Your task to perform on an android device: open app "Messages" (install if not already installed) Image 0: 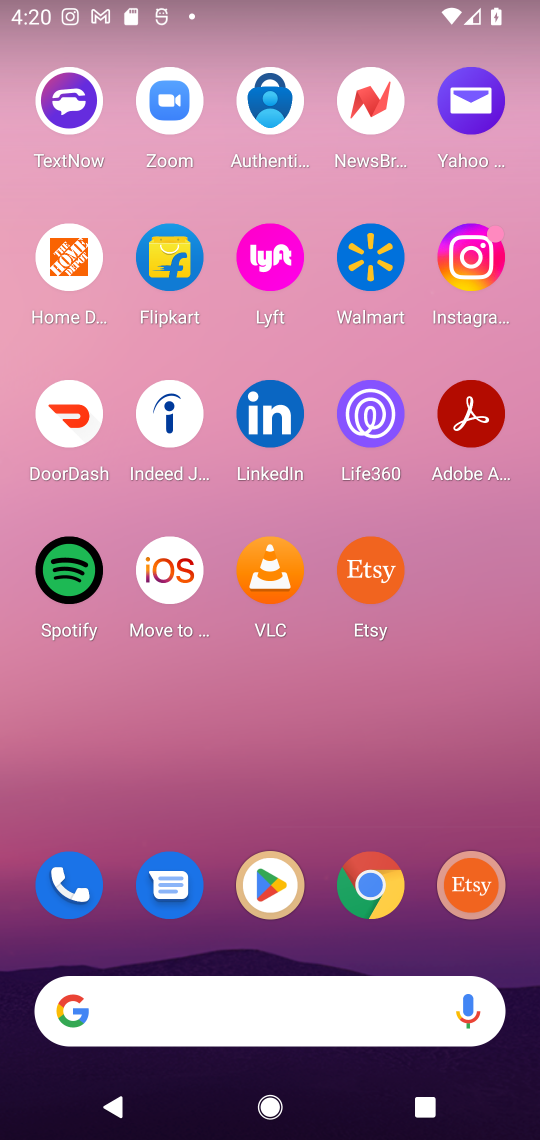
Step 0: press home button
Your task to perform on an android device: open app "Messages" (install if not already installed) Image 1: 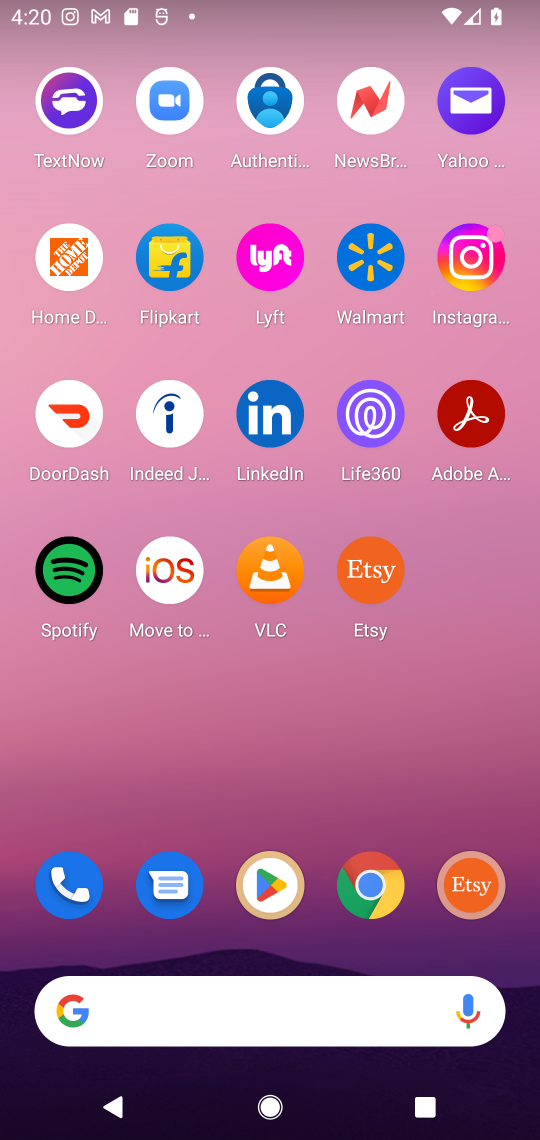
Step 1: click (263, 882)
Your task to perform on an android device: open app "Messages" (install if not already installed) Image 2: 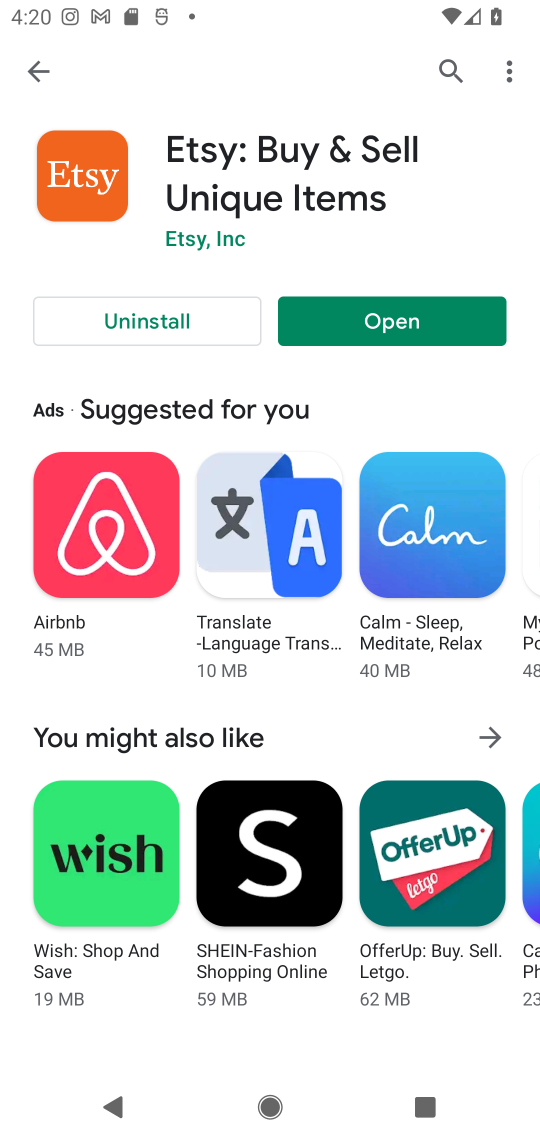
Step 2: click (45, 71)
Your task to perform on an android device: open app "Messages" (install if not already installed) Image 3: 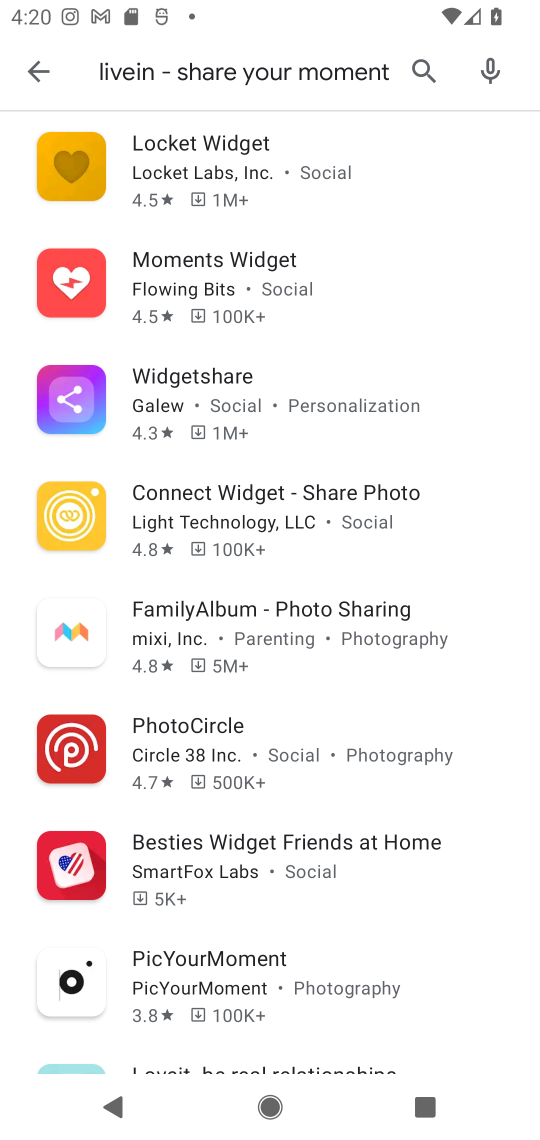
Step 3: click (431, 65)
Your task to perform on an android device: open app "Messages" (install if not already installed) Image 4: 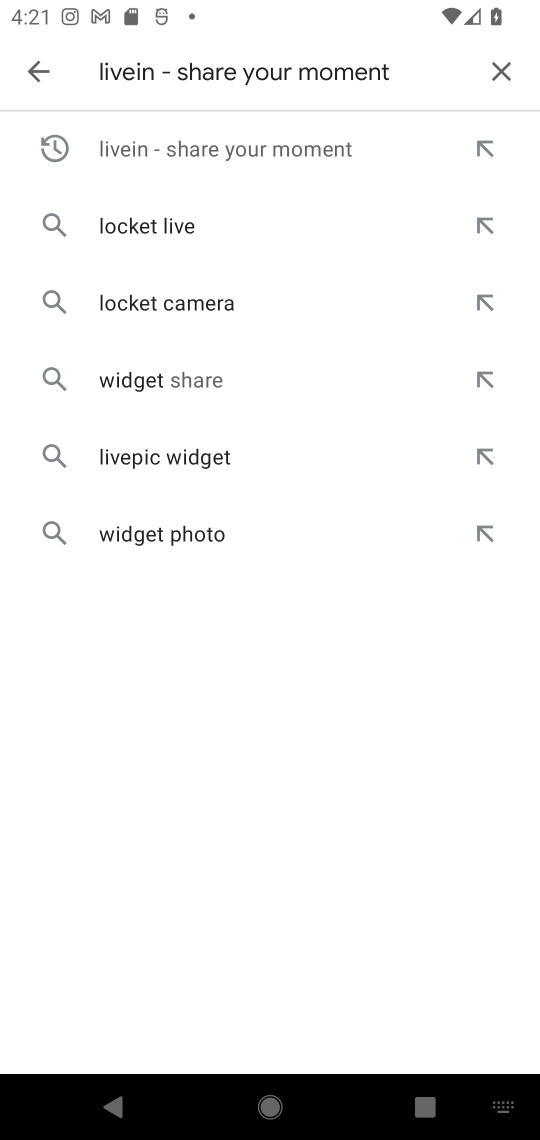
Step 4: click (499, 64)
Your task to perform on an android device: open app "Messages" (install if not already installed) Image 5: 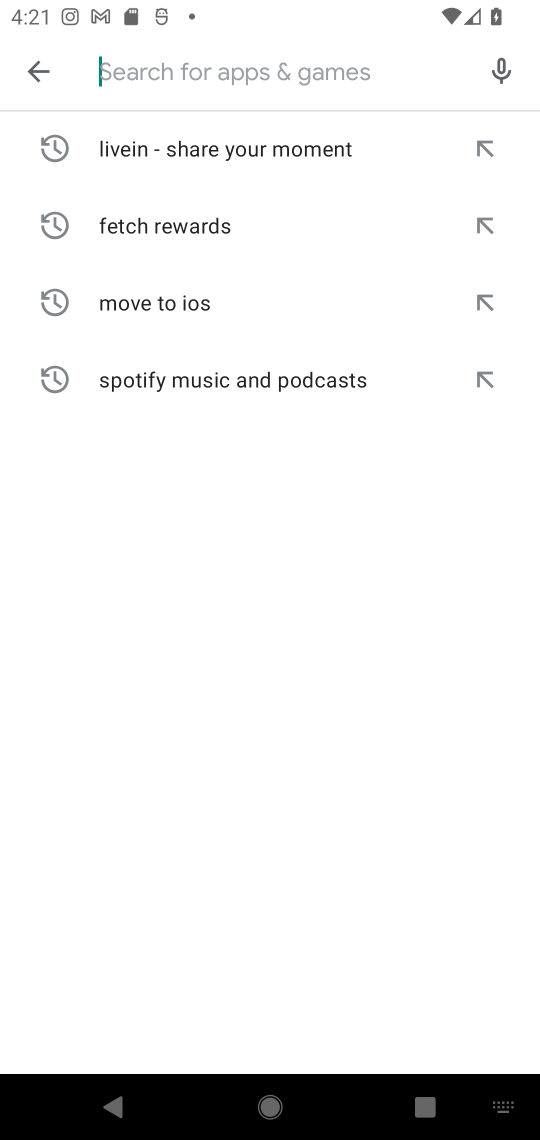
Step 5: type "Messages"
Your task to perform on an android device: open app "Messages" (install if not already installed) Image 6: 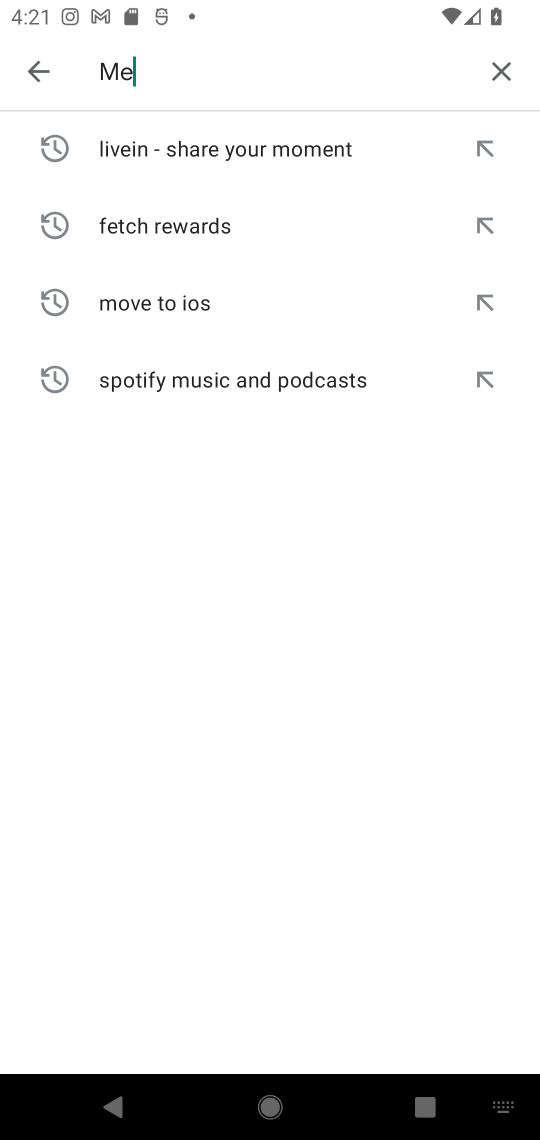
Step 6: type ""
Your task to perform on an android device: open app "Messages" (install if not already installed) Image 7: 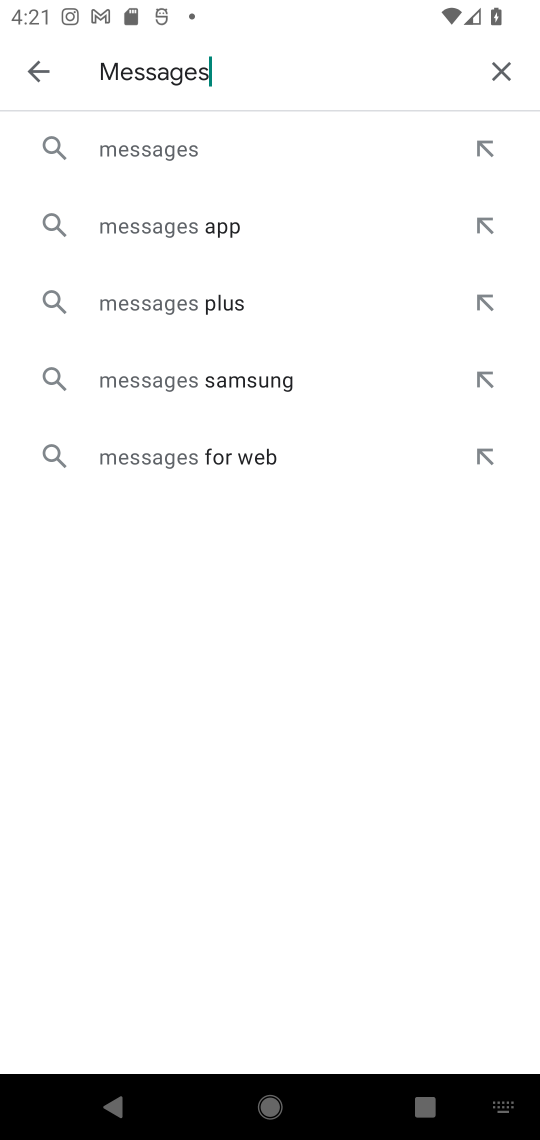
Step 7: click (178, 155)
Your task to perform on an android device: open app "Messages" (install if not already installed) Image 8: 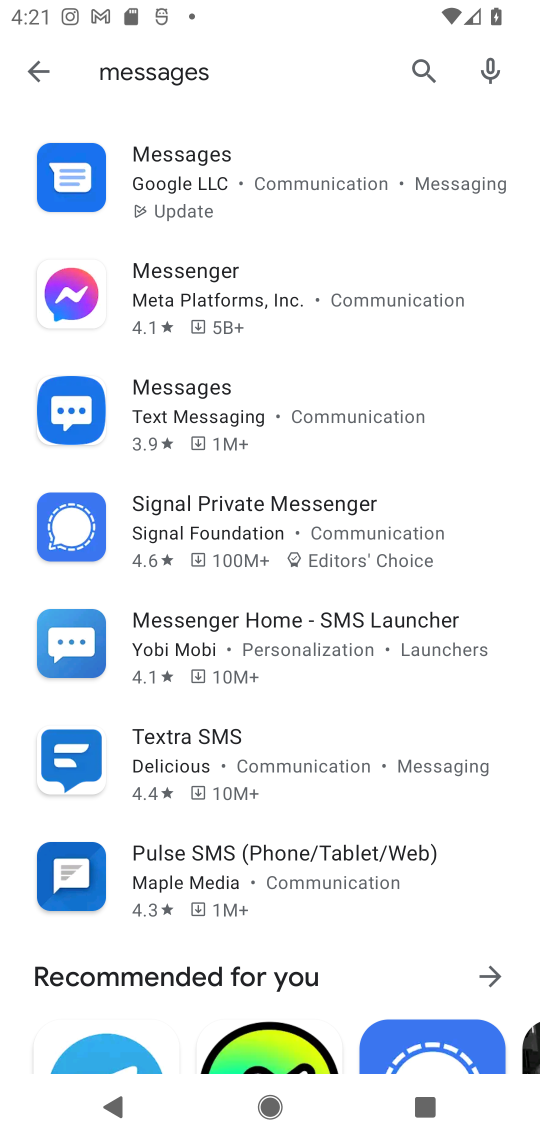
Step 8: click (231, 176)
Your task to perform on an android device: open app "Messages" (install if not already installed) Image 9: 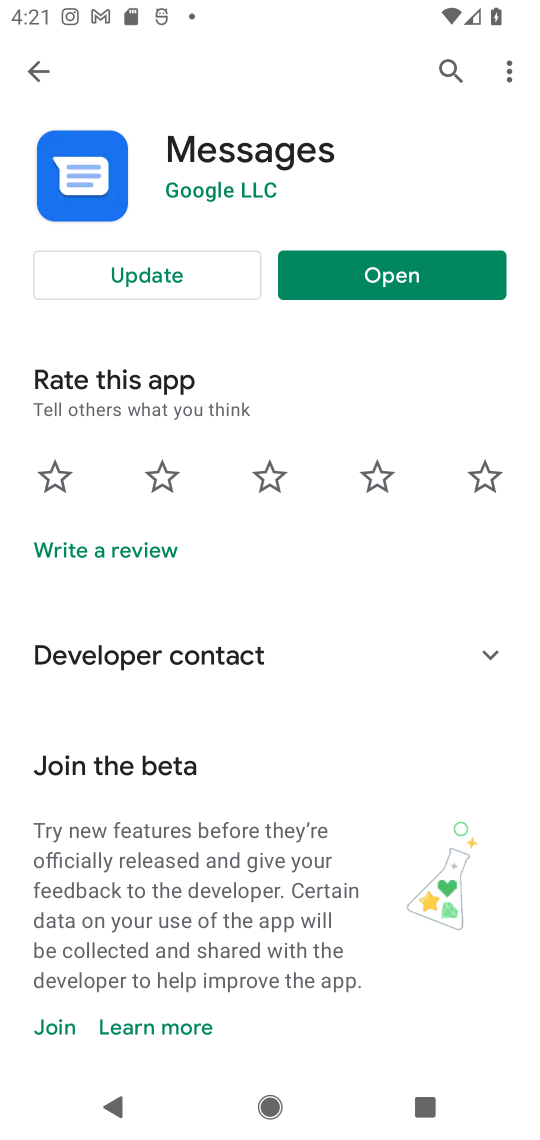
Step 9: click (417, 286)
Your task to perform on an android device: open app "Messages" (install if not already installed) Image 10: 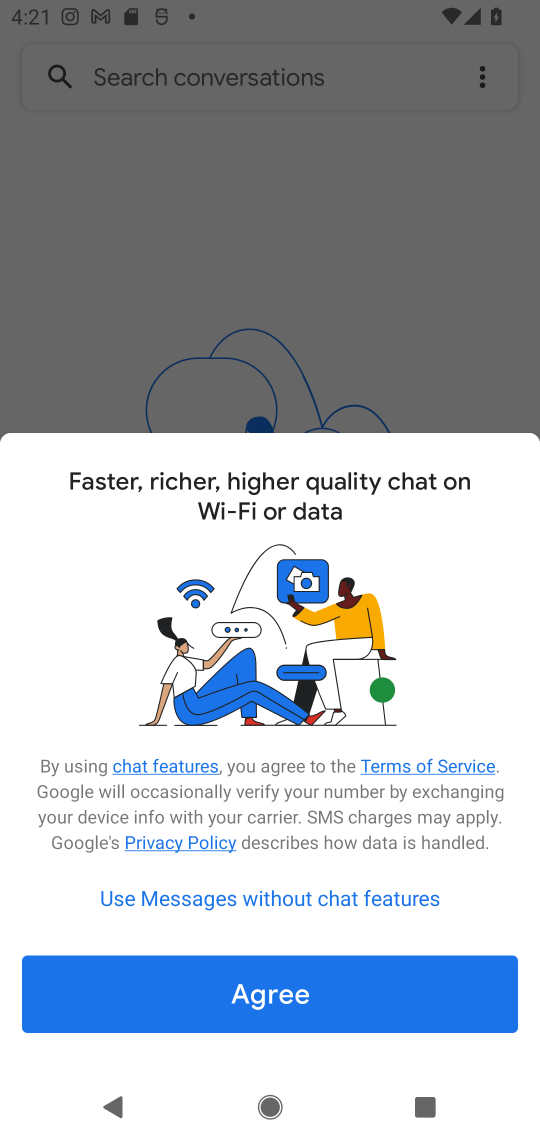
Step 10: click (259, 998)
Your task to perform on an android device: open app "Messages" (install if not already installed) Image 11: 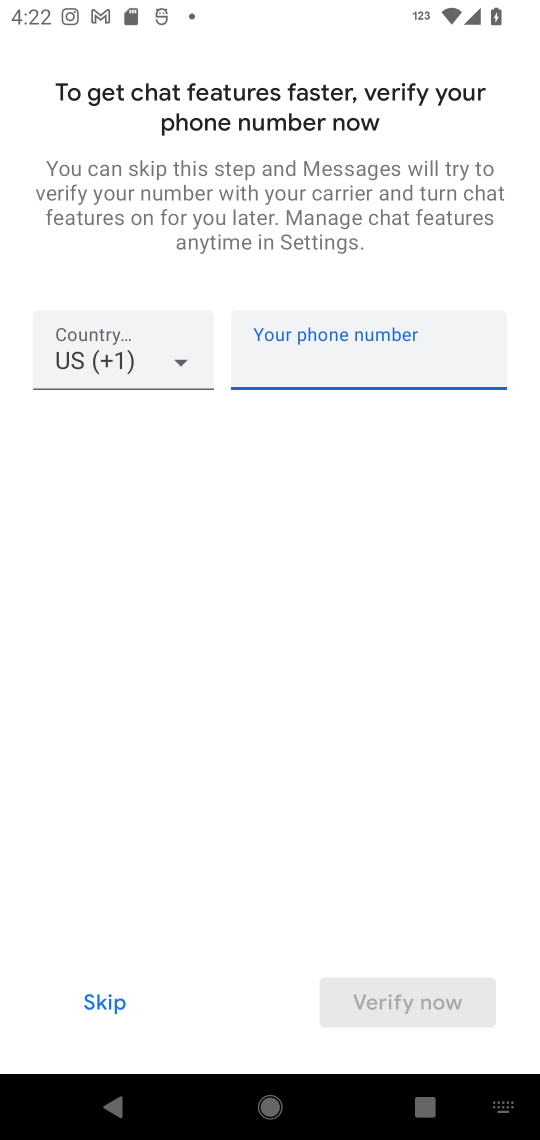
Step 11: click (121, 998)
Your task to perform on an android device: open app "Messages" (install if not already installed) Image 12: 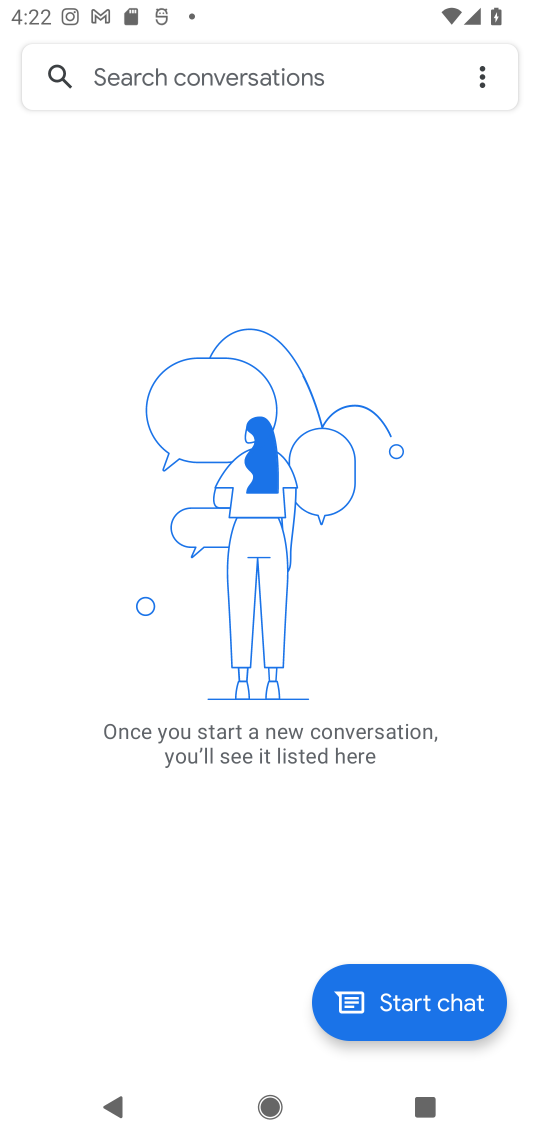
Step 12: task complete